Your task to perform on an android device: turn off data saver in the chrome app Image 0: 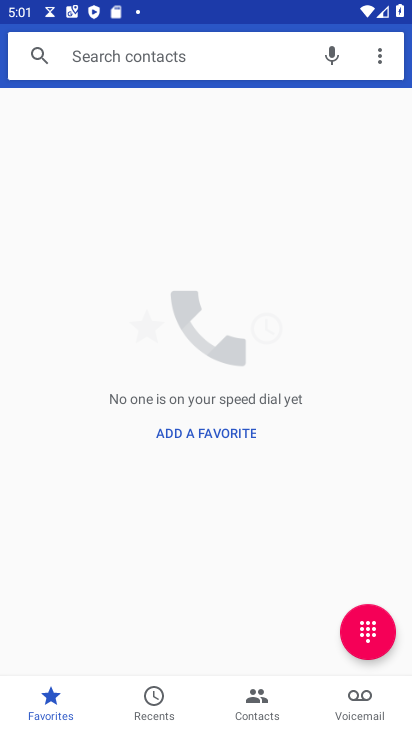
Step 0: press home button
Your task to perform on an android device: turn off data saver in the chrome app Image 1: 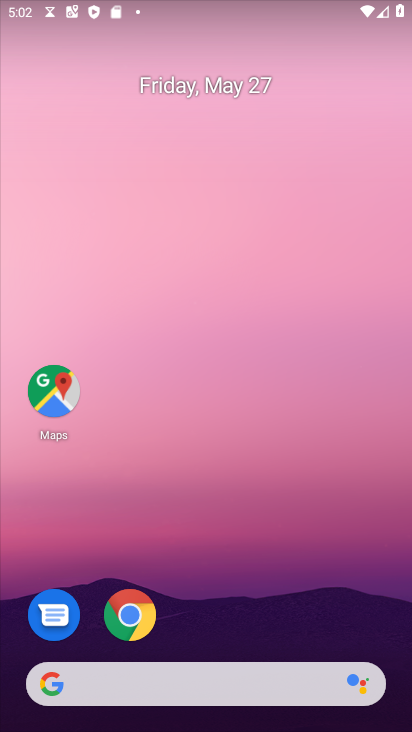
Step 1: click (120, 624)
Your task to perform on an android device: turn off data saver in the chrome app Image 2: 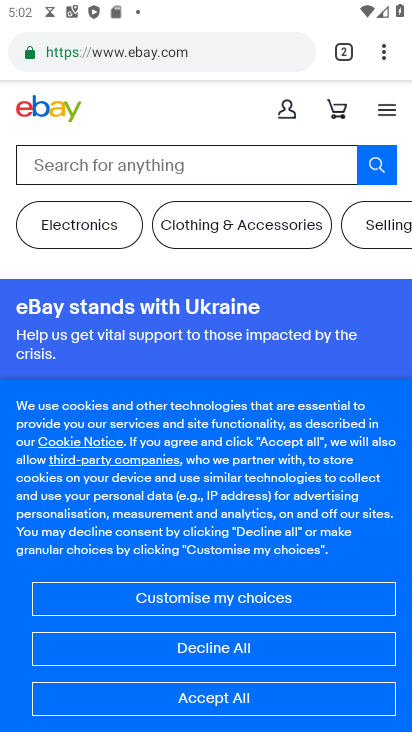
Step 2: click (394, 47)
Your task to perform on an android device: turn off data saver in the chrome app Image 3: 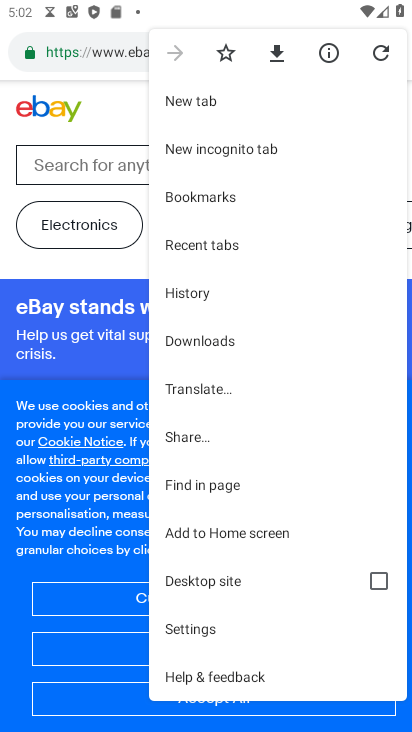
Step 3: click (246, 633)
Your task to perform on an android device: turn off data saver in the chrome app Image 4: 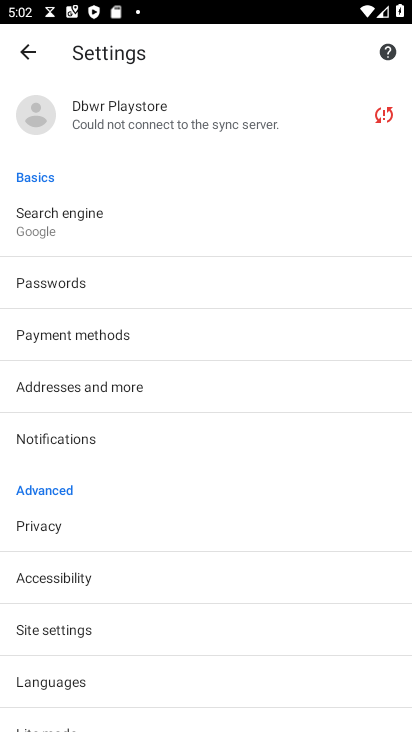
Step 4: drag from (176, 624) to (153, 264)
Your task to perform on an android device: turn off data saver in the chrome app Image 5: 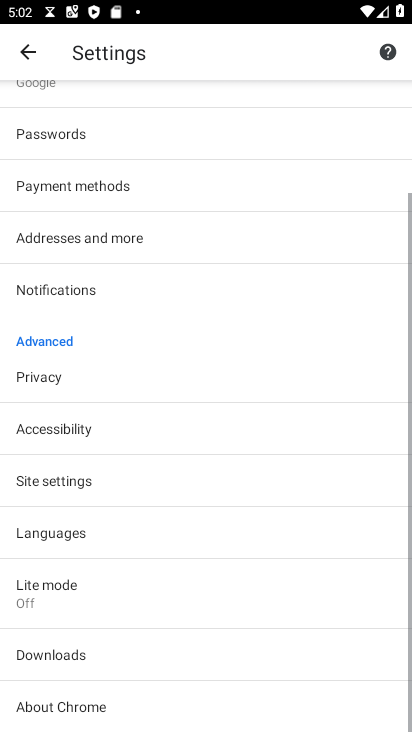
Step 5: click (81, 593)
Your task to perform on an android device: turn off data saver in the chrome app Image 6: 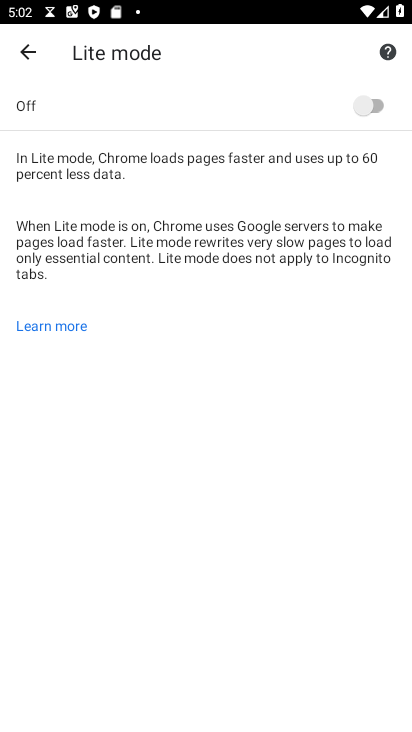
Step 6: task complete